Your task to perform on an android device: install app "WhatsApp Messenger" Image 0: 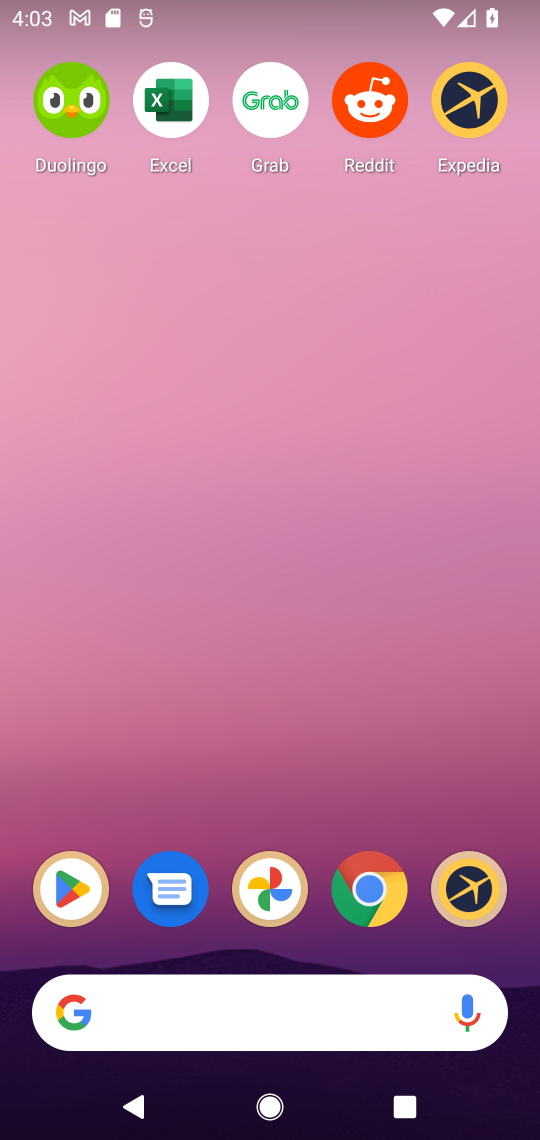
Step 0: press home button
Your task to perform on an android device: install app "WhatsApp Messenger" Image 1: 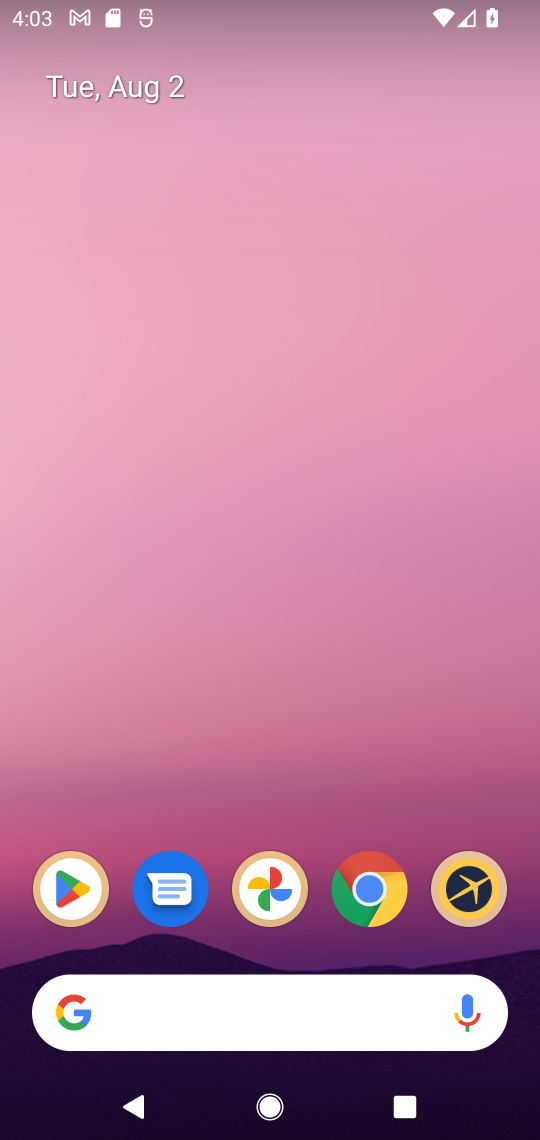
Step 1: drag from (410, 596) to (389, 114)
Your task to perform on an android device: install app "WhatsApp Messenger" Image 2: 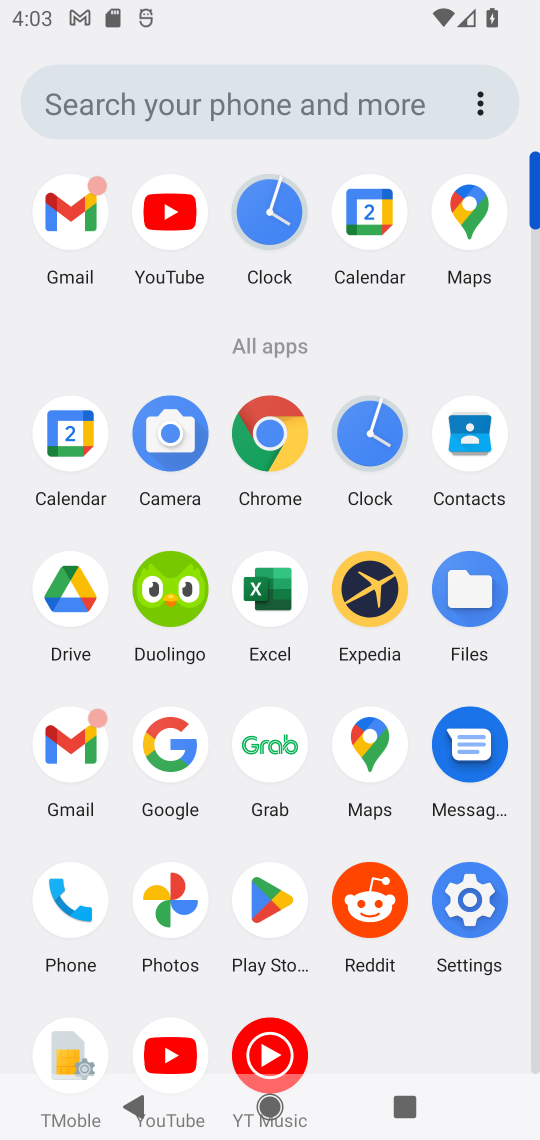
Step 2: click (275, 903)
Your task to perform on an android device: install app "WhatsApp Messenger" Image 3: 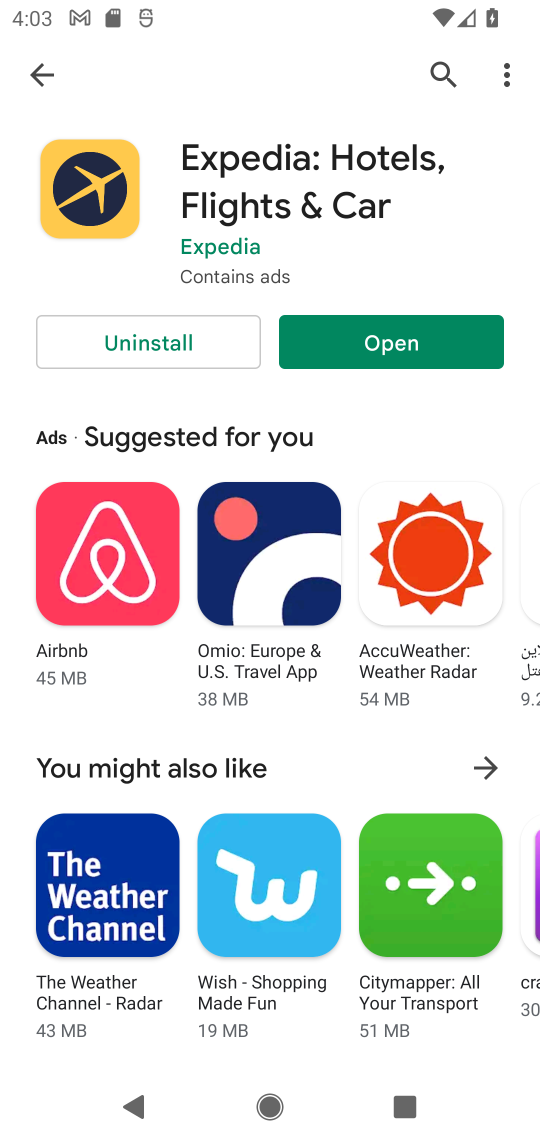
Step 3: click (437, 79)
Your task to perform on an android device: install app "WhatsApp Messenger" Image 4: 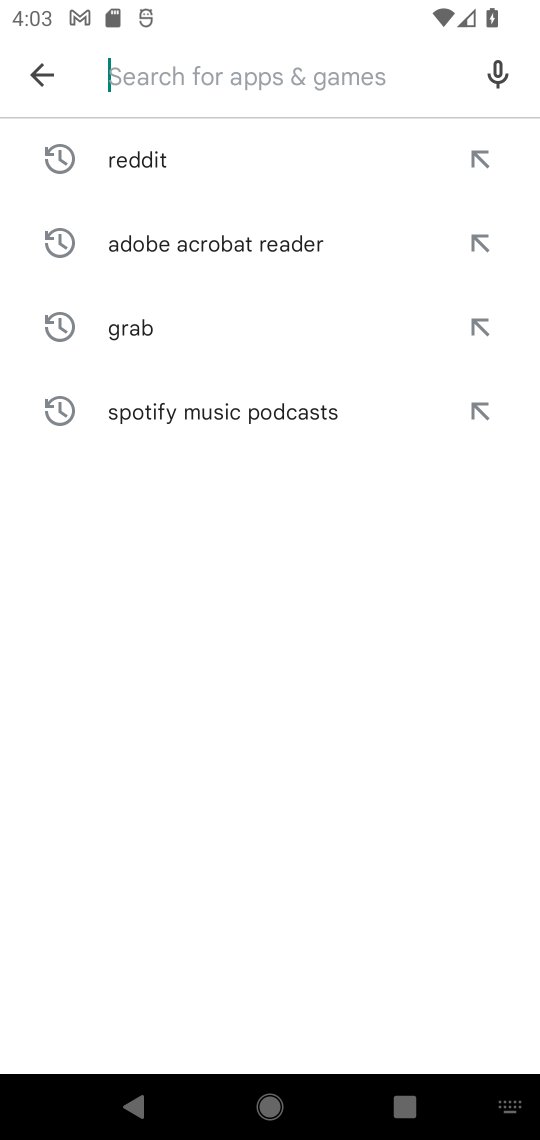
Step 4: click (328, 100)
Your task to perform on an android device: install app "WhatsApp Messenger" Image 5: 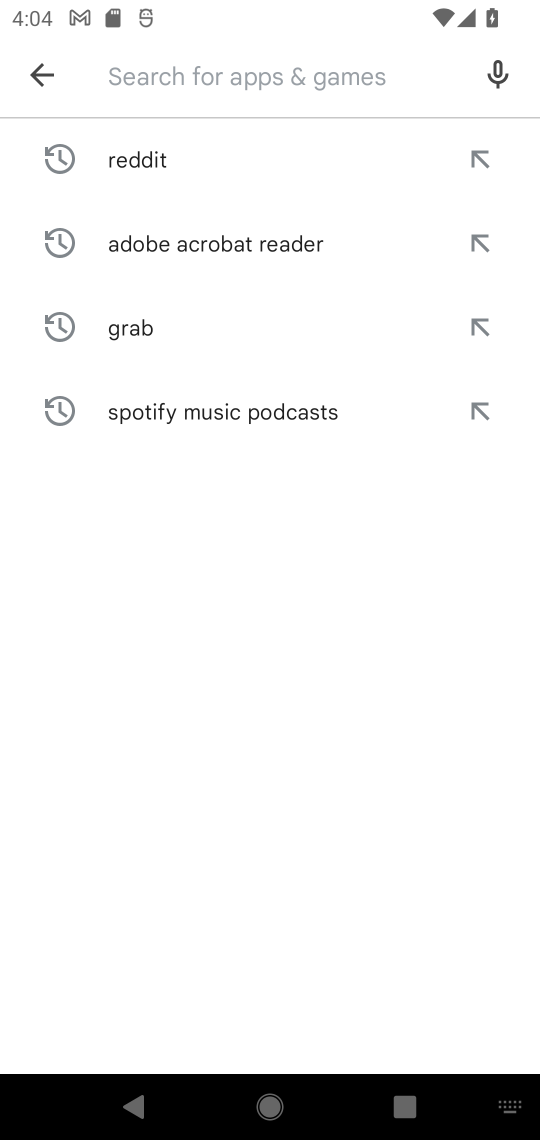
Step 5: type "whatsapp messenger"
Your task to perform on an android device: install app "WhatsApp Messenger" Image 6: 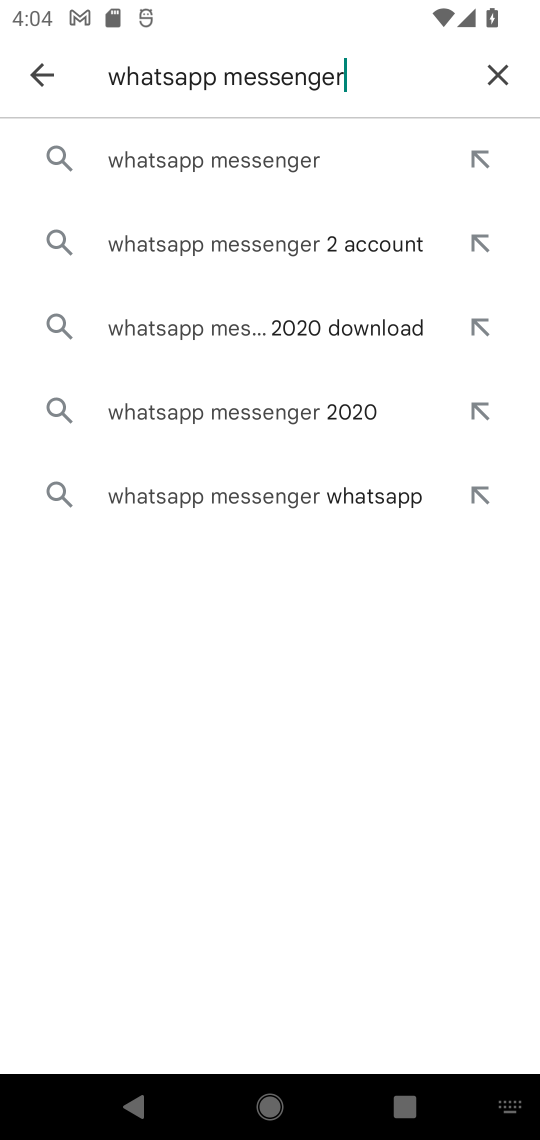
Step 6: click (302, 150)
Your task to perform on an android device: install app "WhatsApp Messenger" Image 7: 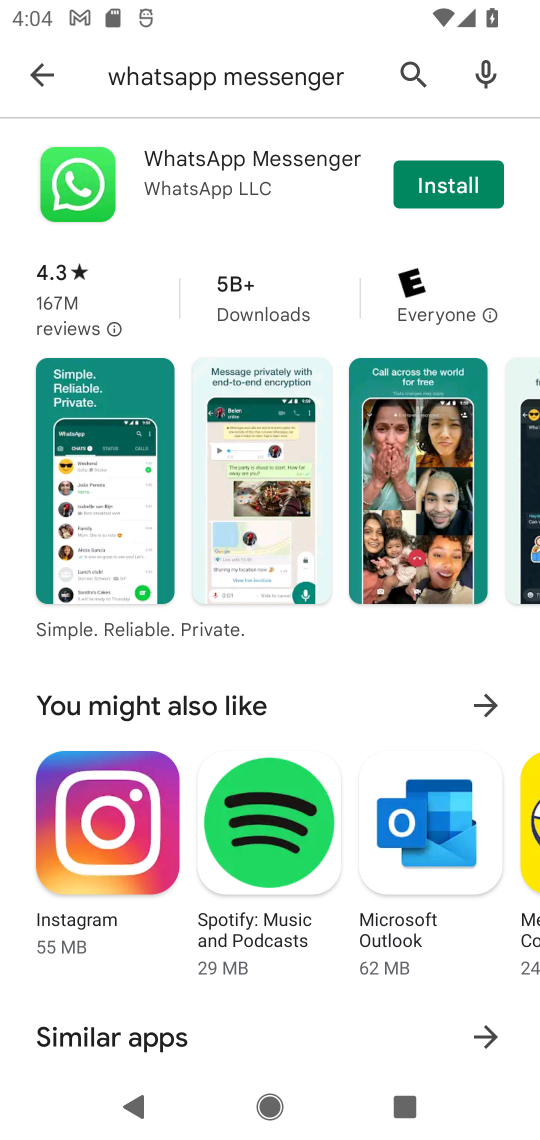
Step 7: click (440, 180)
Your task to perform on an android device: install app "WhatsApp Messenger" Image 8: 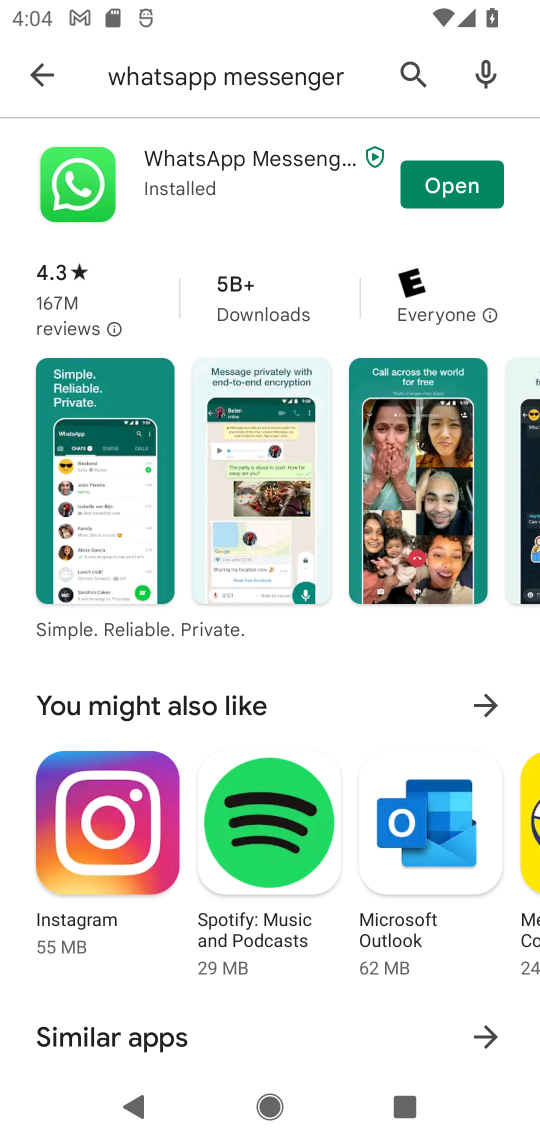
Step 8: task complete